Your task to perform on an android device: open a bookmark in the chrome app Image 0: 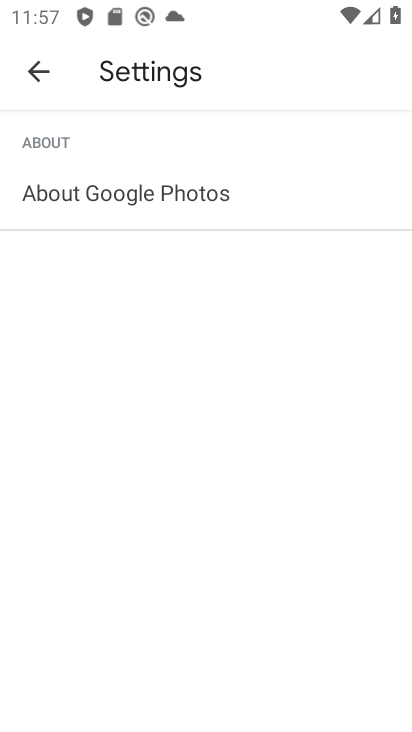
Step 0: press home button
Your task to perform on an android device: open a bookmark in the chrome app Image 1: 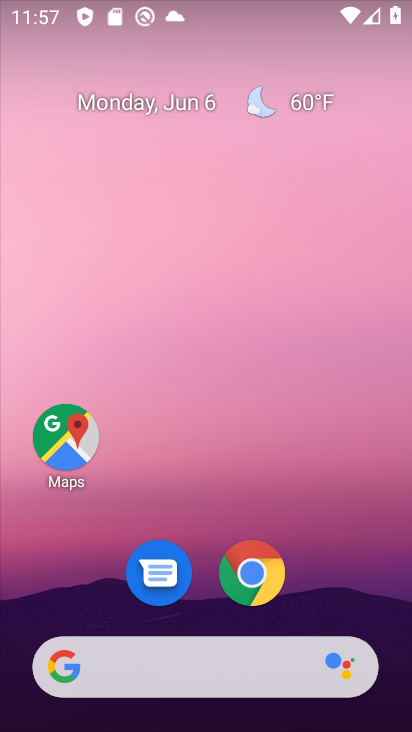
Step 1: click (252, 597)
Your task to perform on an android device: open a bookmark in the chrome app Image 2: 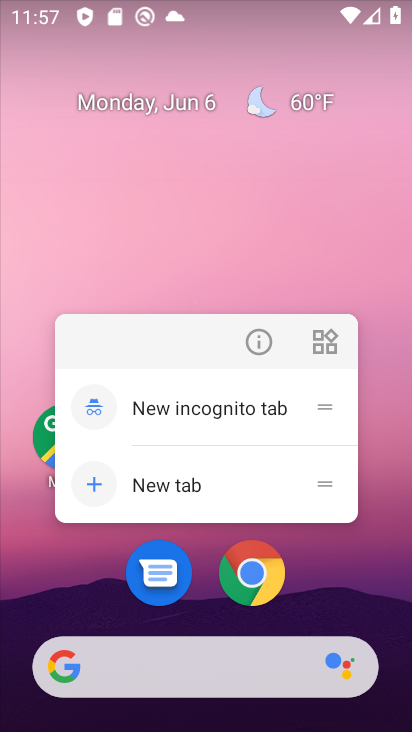
Step 2: click (252, 597)
Your task to perform on an android device: open a bookmark in the chrome app Image 3: 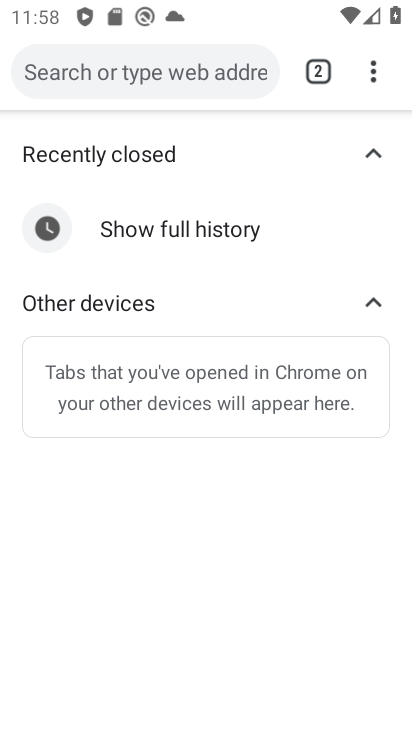
Step 3: task complete